Your task to perform on an android device: turn off wifi Image 0: 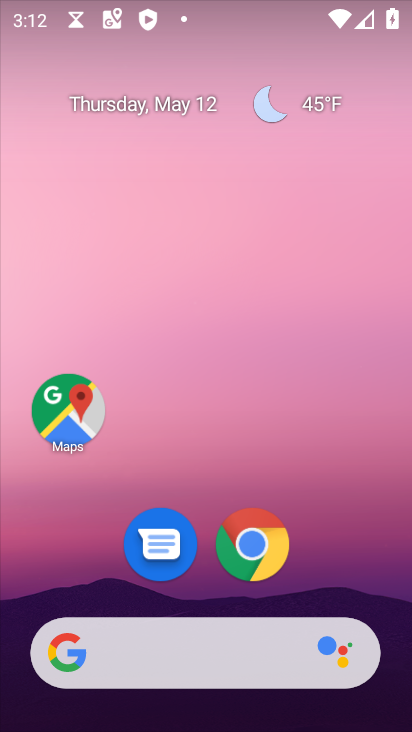
Step 0: drag from (300, 592) to (288, 99)
Your task to perform on an android device: turn off wifi Image 1: 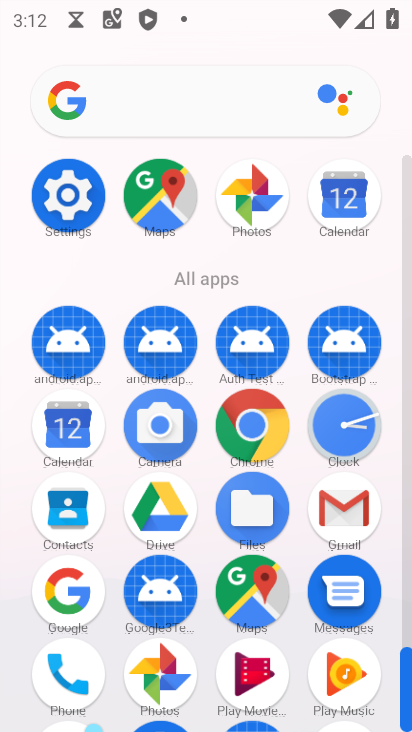
Step 1: click (96, 205)
Your task to perform on an android device: turn off wifi Image 2: 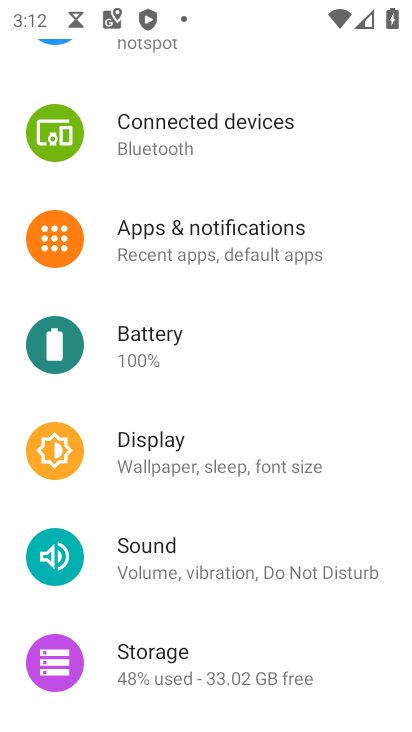
Step 2: drag from (122, 189) to (115, 286)
Your task to perform on an android device: turn off wifi Image 3: 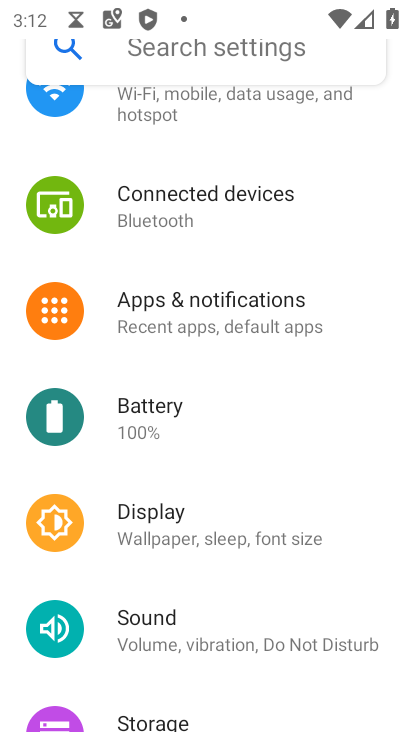
Step 3: drag from (111, 192) to (106, 338)
Your task to perform on an android device: turn off wifi Image 4: 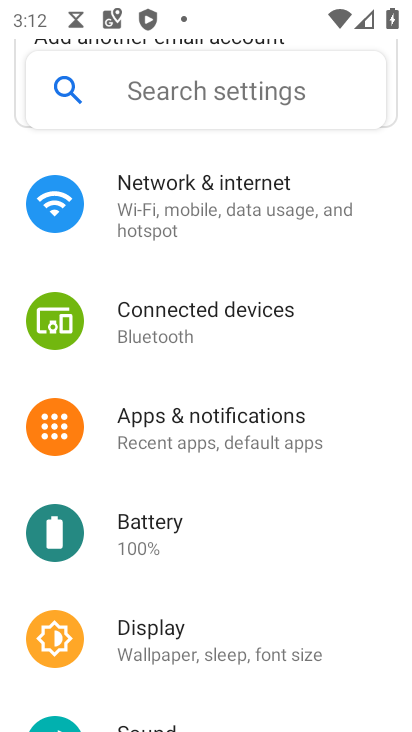
Step 4: click (206, 222)
Your task to perform on an android device: turn off wifi Image 5: 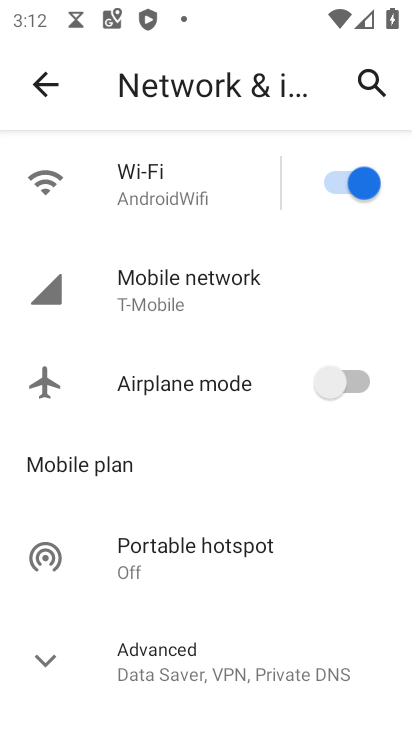
Step 5: click (344, 191)
Your task to perform on an android device: turn off wifi Image 6: 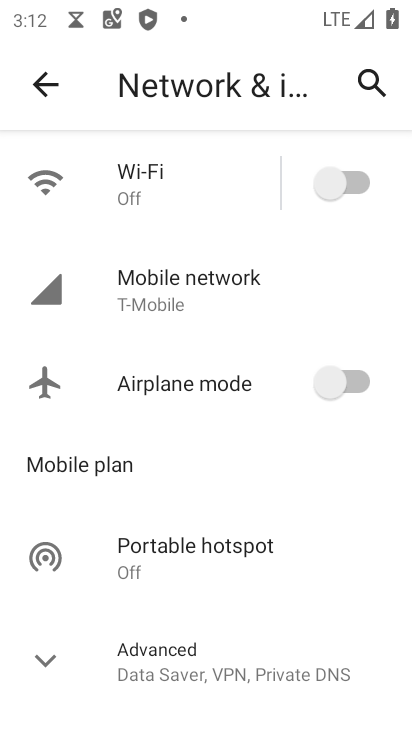
Step 6: task complete